Your task to perform on an android device: Go to CNN.com Image 0: 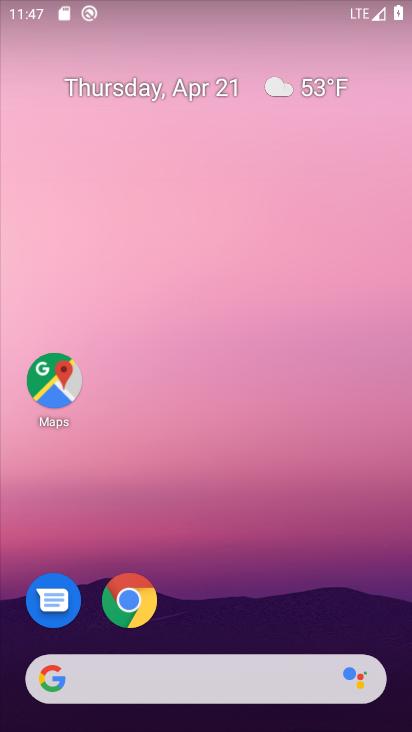
Step 0: click (137, 599)
Your task to perform on an android device: Go to CNN.com Image 1: 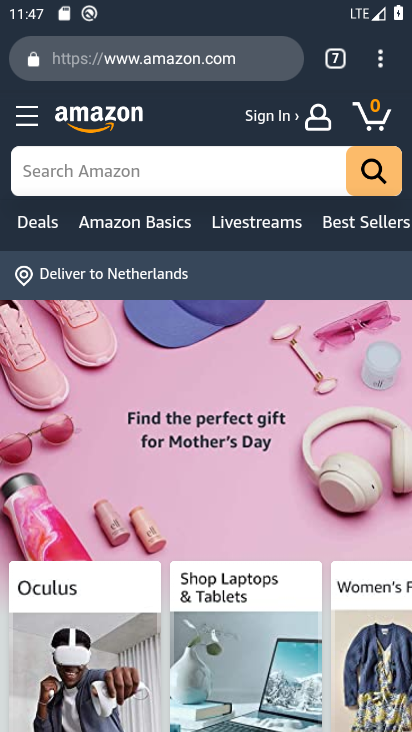
Step 1: click (336, 57)
Your task to perform on an android device: Go to CNN.com Image 2: 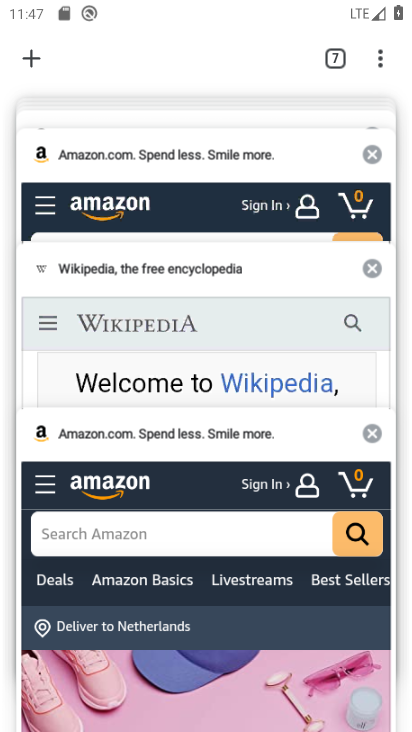
Step 2: click (30, 56)
Your task to perform on an android device: Go to CNN.com Image 3: 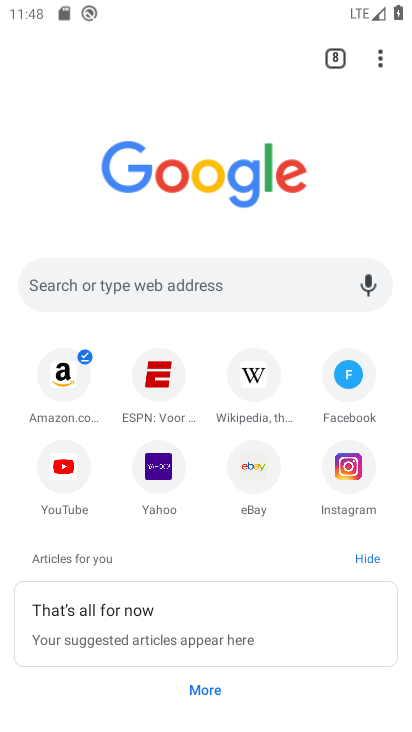
Step 3: click (218, 283)
Your task to perform on an android device: Go to CNN.com Image 4: 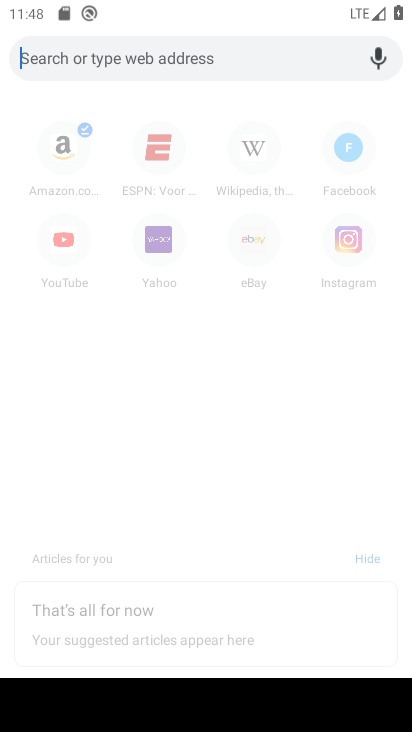
Step 4: type "CNN.com"
Your task to perform on an android device: Go to CNN.com Image 5: 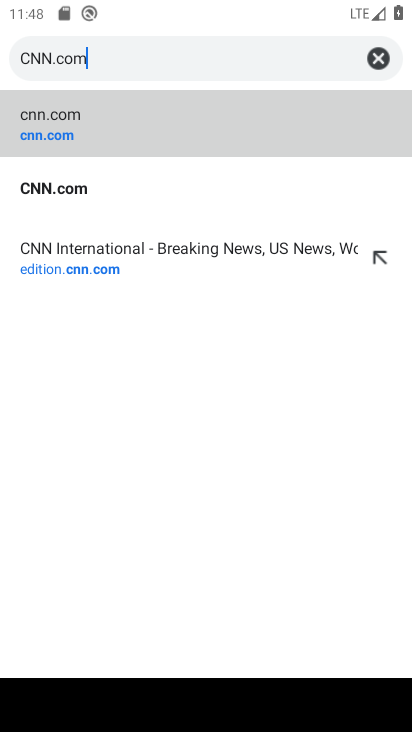
Step 5: click (227, 138)
Your task to perform on an android device: Go to CNN.com Image 6: 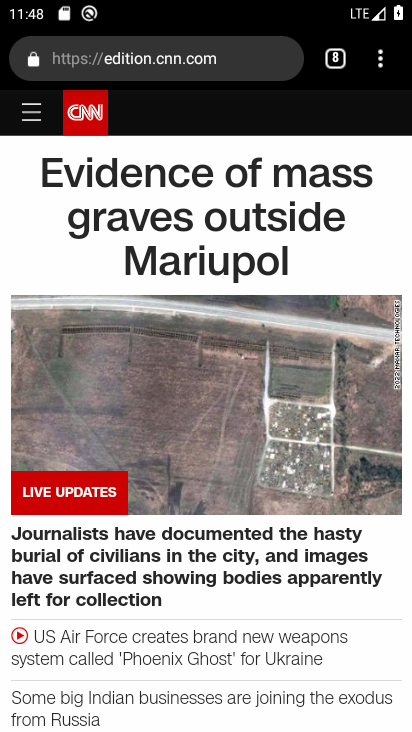
Step 6: task complete